Your task to perform on an android device: What's the weather today? Image 0: 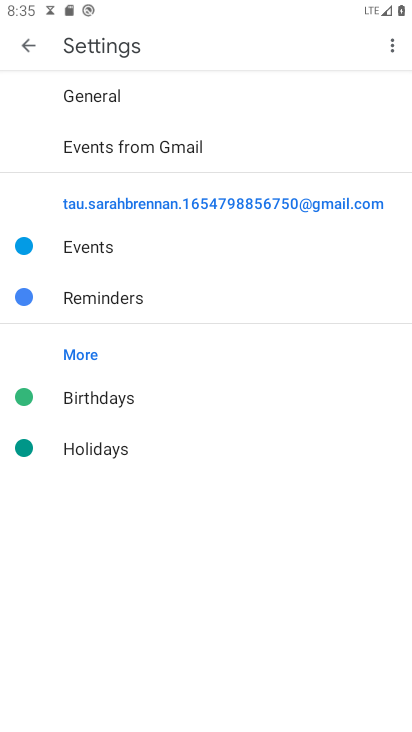
Step 0: press home button
Your task to perform on an android device: What's the weather today? Image 1: 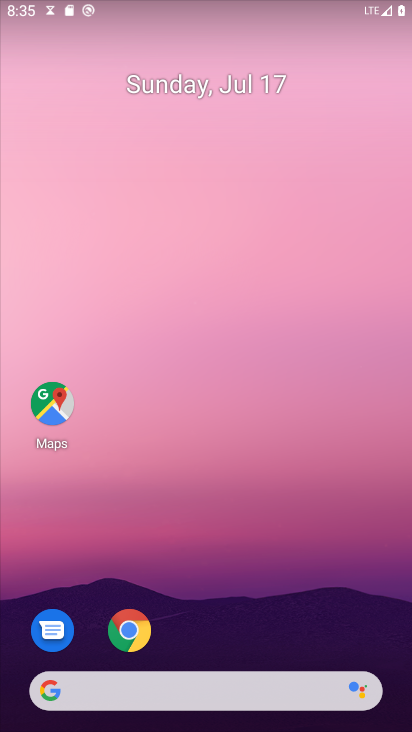
Step 1: drag from (197, 652) to (156, 725)
Your task to perform on an android device: What's the weather today? Image 2: 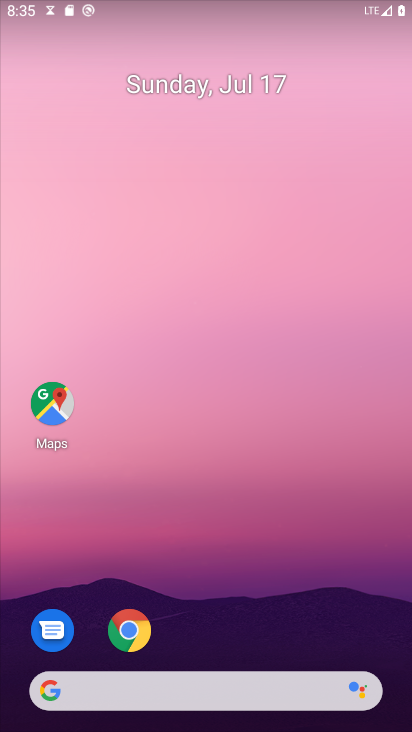
Step 2: click (175, 699)
Your task to perform on an android device: What's the weather today? Image 3: 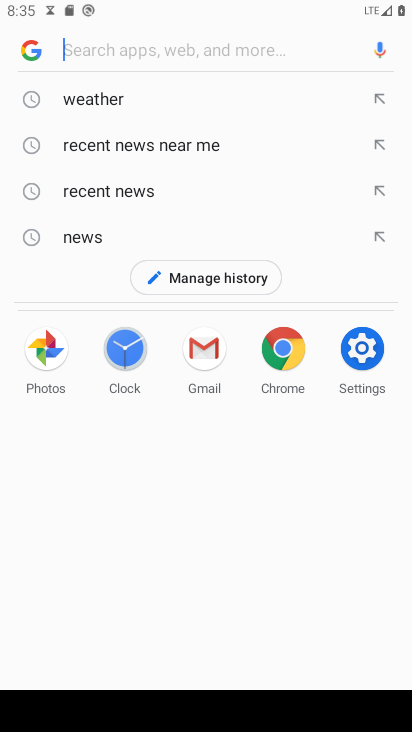
Step 3: click (96, 98)
Your task to perform on an android device: What's the weather today? Image 4: 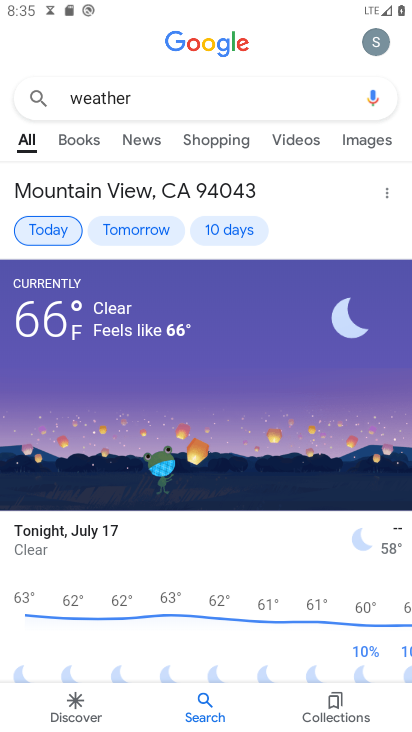
Step 4: task complete